Your task to perform on an android device: Go to calendar. Show me events next week Image 0: 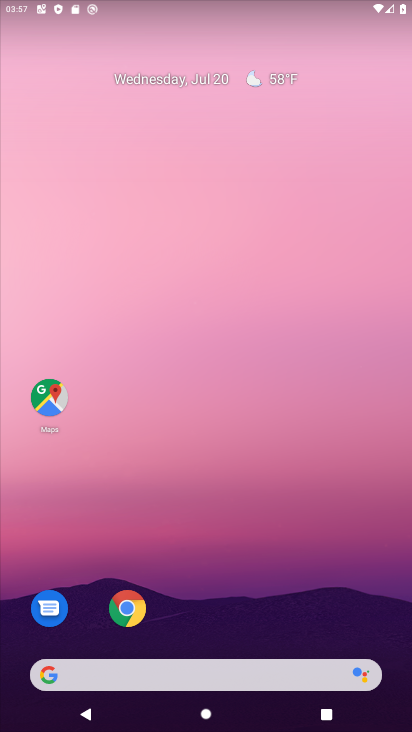
Step 0: drag from (305, 637) to (300, 30)
Your task to perform on an android device: Go to calendar. Show me events next week Image 1: 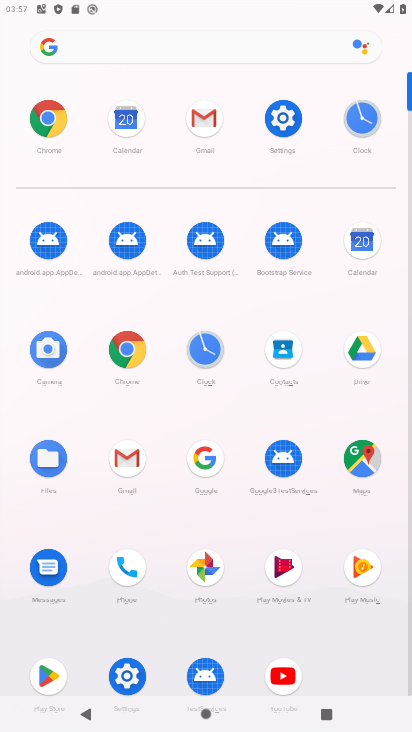
Step 1: click (132, 122)
Your task to perform on an android device: Go to calendar. Show me events next week Image 2: 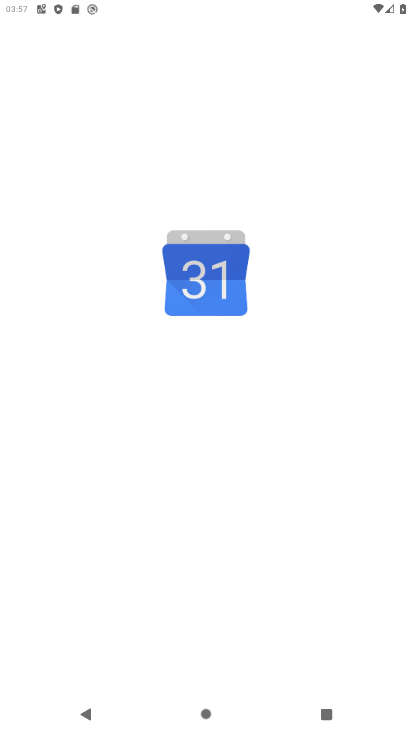
Step 2: task complete